Your task to perform on an android device: Open eBay Image 0: 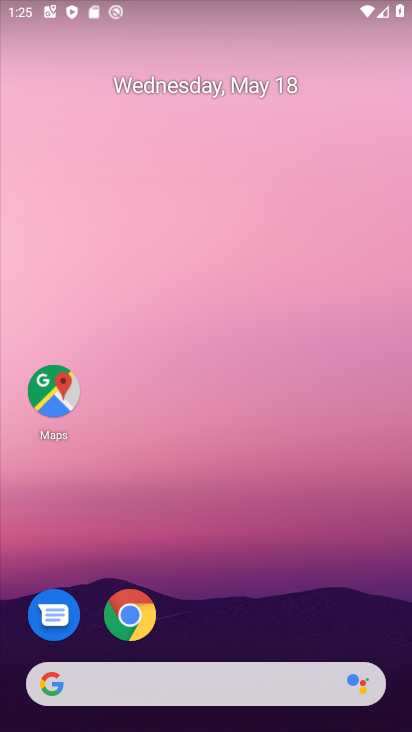
Step 0: drag from (348, 628) to (273, 44)
Your task to perform on an android device: Open eBay Image 1: 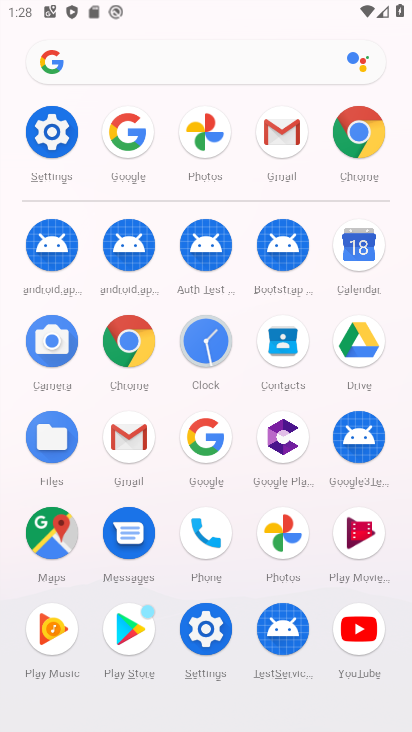
Step 1: click (205, 444)
Your task to perform on an android device: Open eBay Image 2: 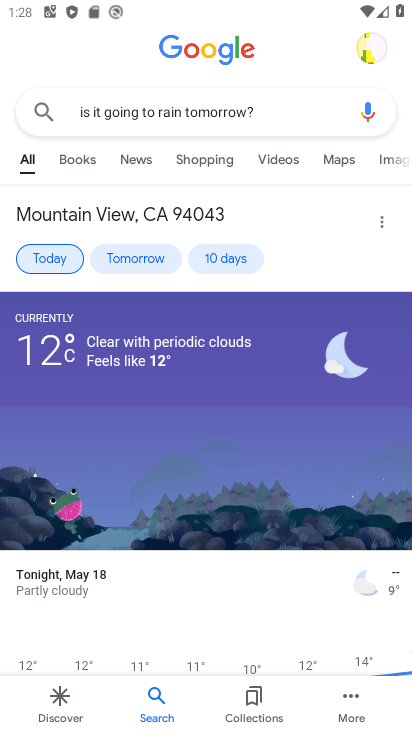
Step 2: press back button
Your task to perform on an android device: Open eBay Image 3: 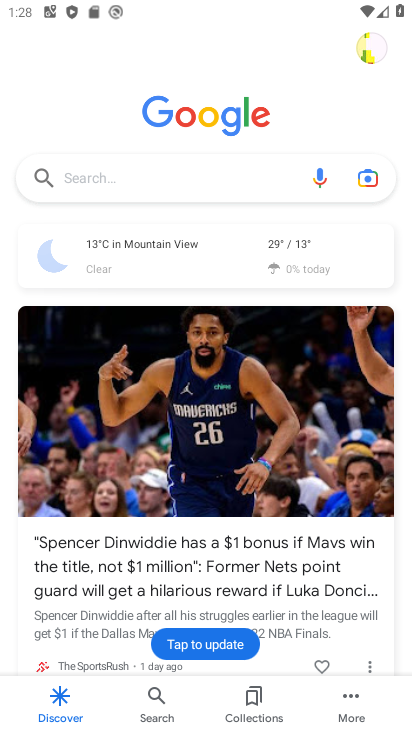
Step 3: click (130, 160)
Your task to perform on an android device: Open eBay Image 4: 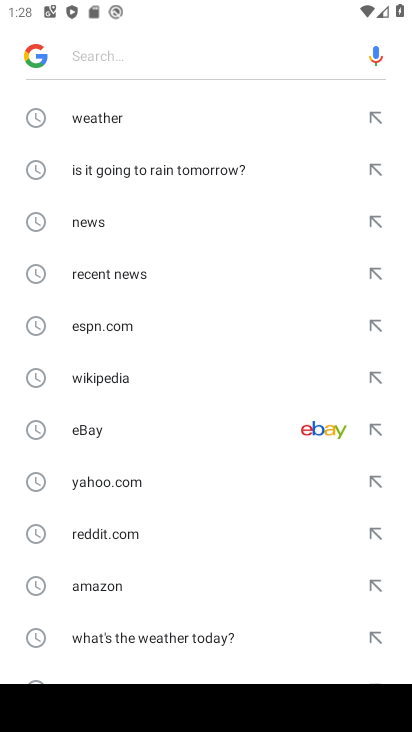
Step 4: click (110, 445)
Your task to perform on an android device: Open eBay Image 5: 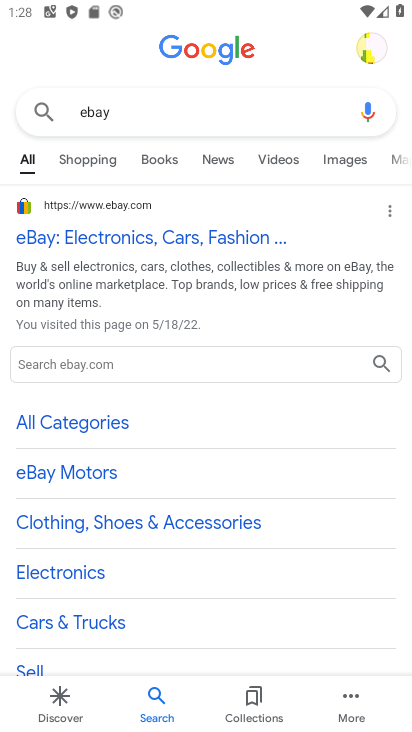
Step 5: task complete